Your task to perform on an android device: Check the weather Image 0: 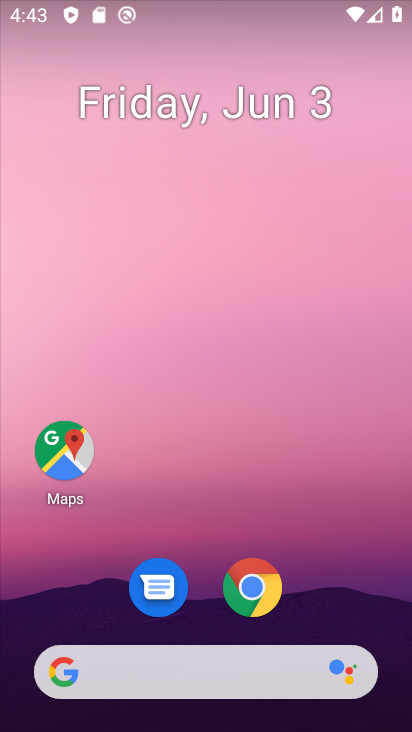
Step 0: click (209, 672)
Your task to perform on an android device: Check the weather Image 1: 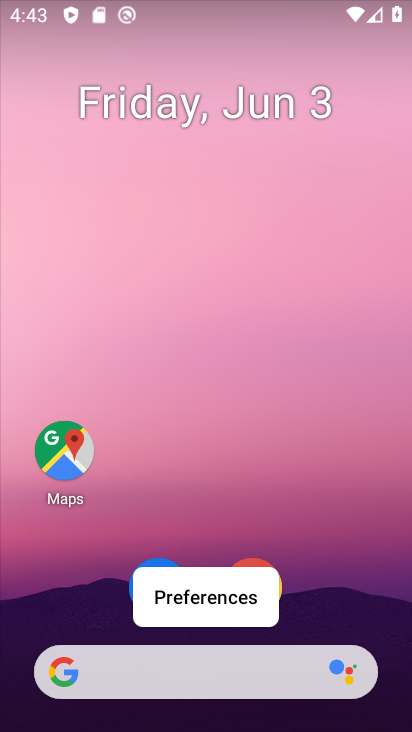
Step 1: click (206, 673)
Your task to perform on an android device: Check the weather Image 2: 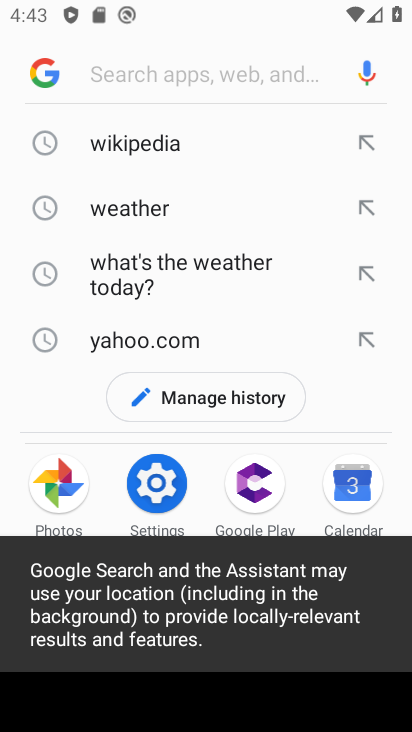
Step 2: click (138, 204)
Your task to perform on an android device: Check the weather Image 3: 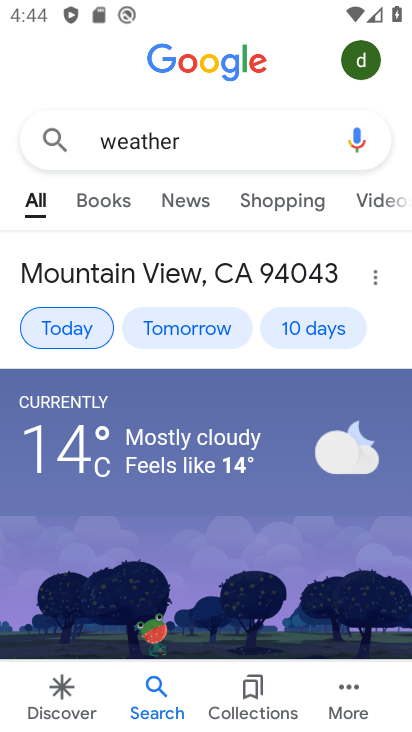
Step 3: task complete